Your task to perform on an android device: snooze an email in the gmail app Image 0: 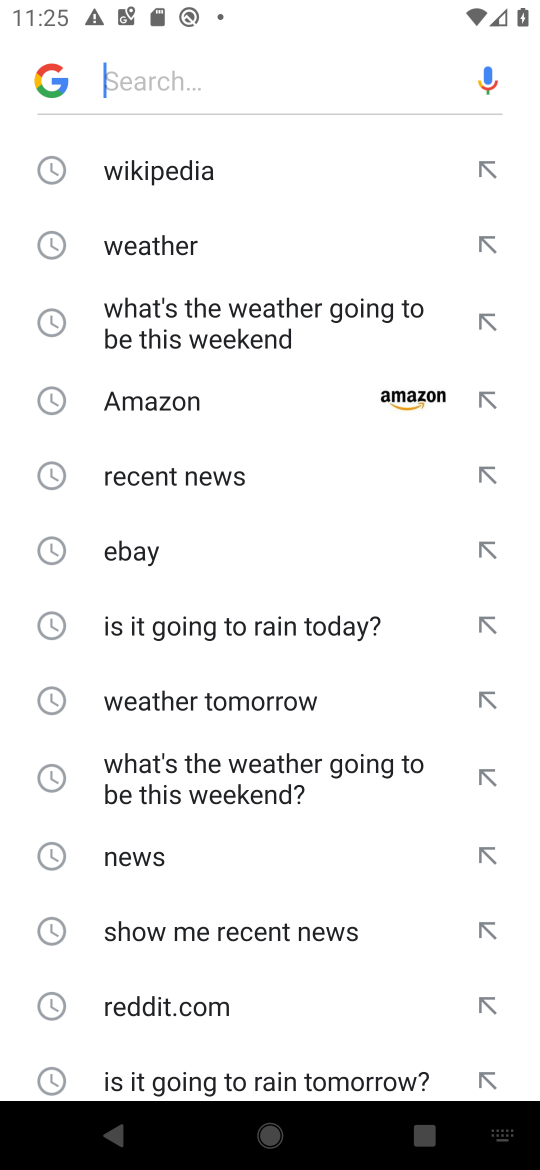
Step 0: press home button
Your task to perform on an android device: snooze an email in the gmail app Image 1: 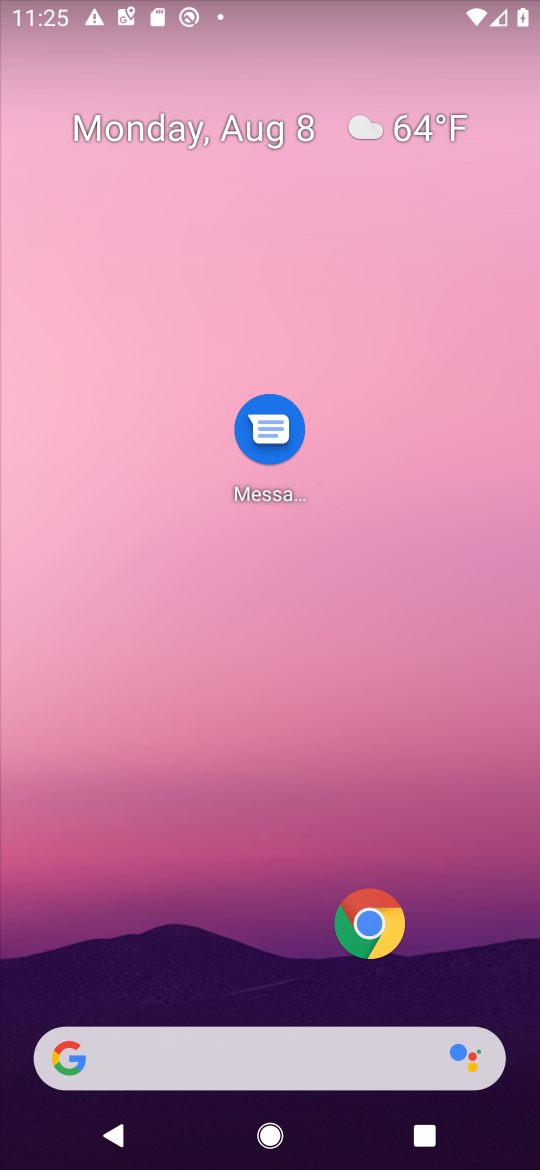
Step 1: drag from (42, 1140) to (364, 348)
Your task to perform on an android device: snooze an email in the gmail app Image 2: 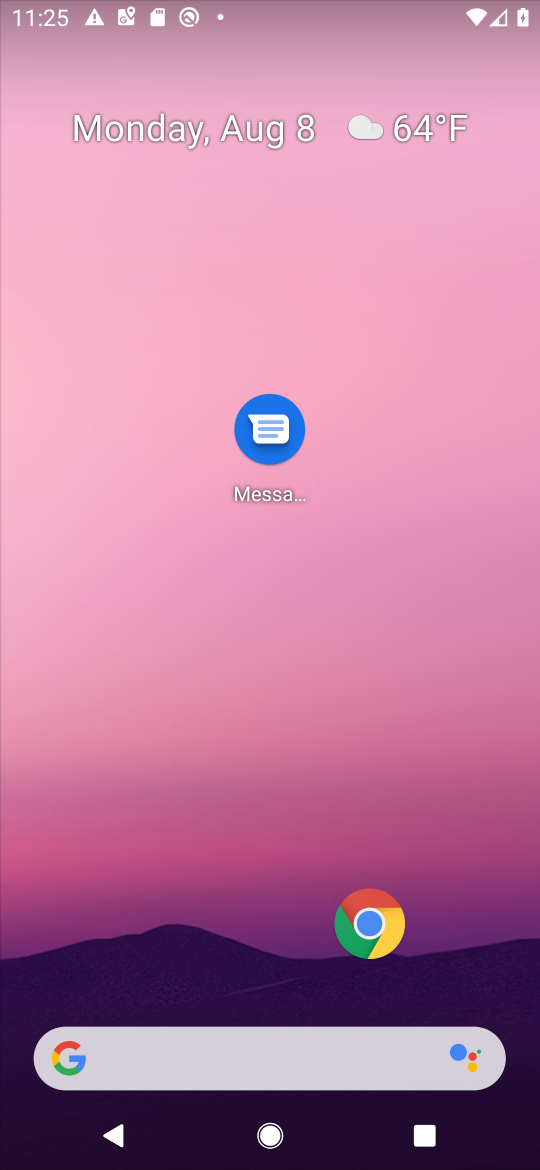
Step 2: drag from (72, 871) to (211, 359)
Your task to perform on an android device: snooze an email in the gmail app Image 3: 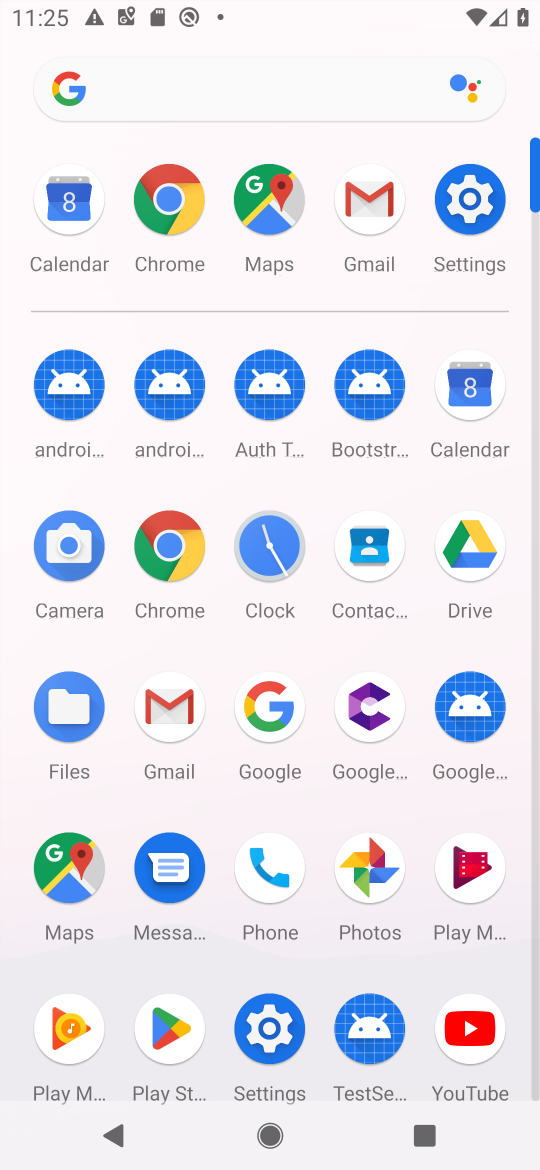
Step 3: click (186, 720)
Your task to perform on an android device: snooze an email in the gmail app Image 4: 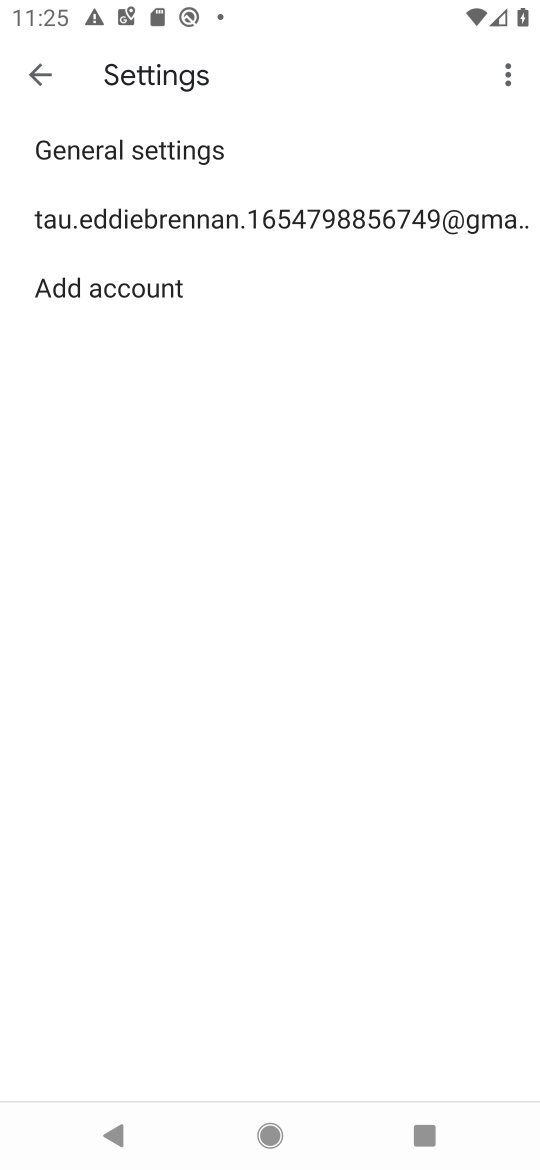
Step 4: click (54, 90)
Your task to perform on an android device: snooze an email in the gmail app Image 5: 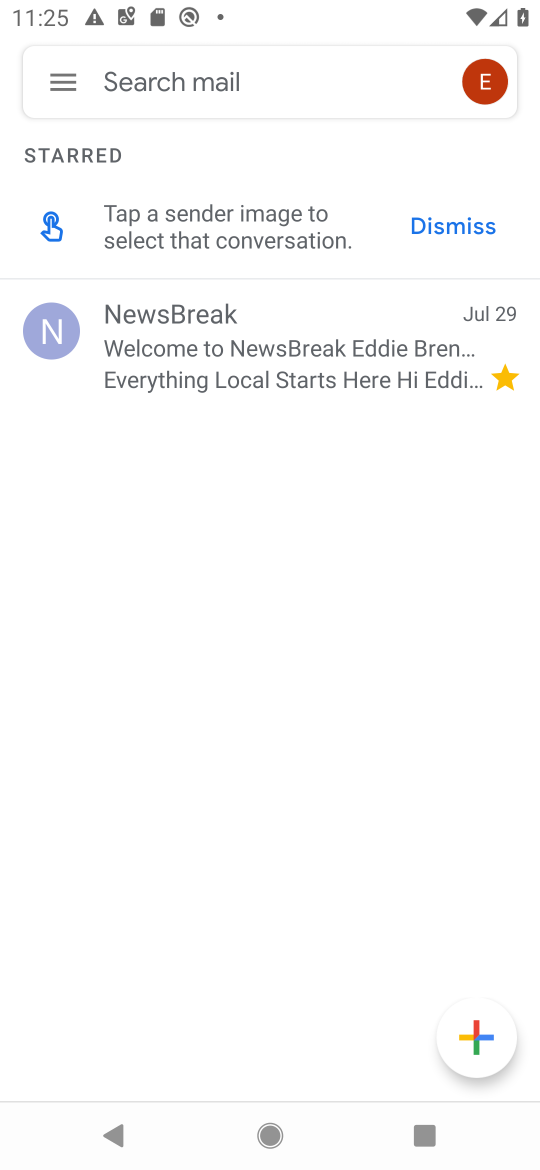
Step 5: click (75, 70)
Your task to perform on an android device: snooze an email in the gmail app Image 6: 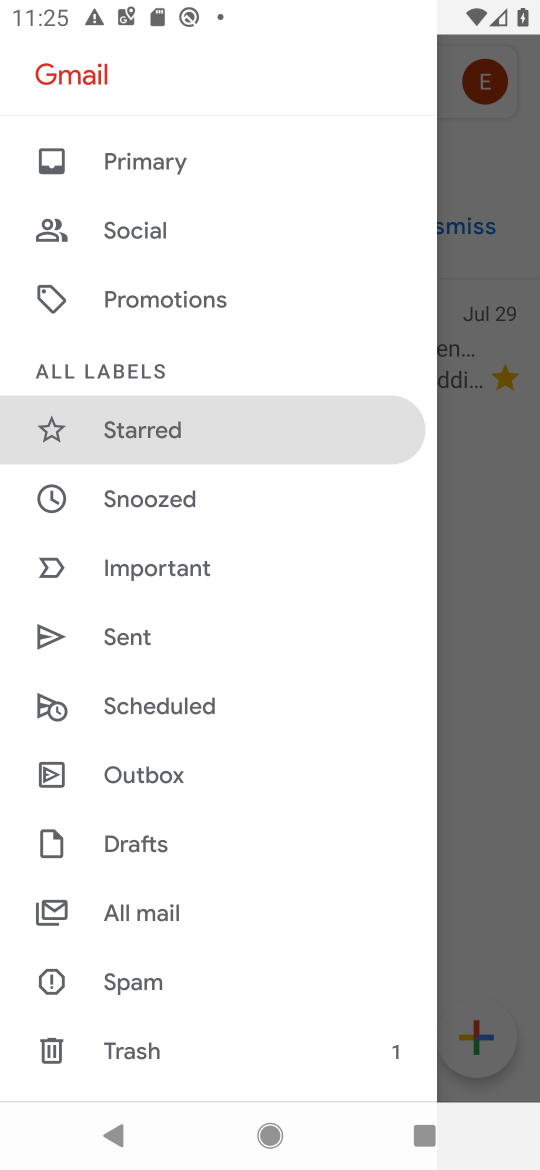
Step 6: click (158, 510)
Your task to perform on an android device: snooze an email in the gmail app Image 7: 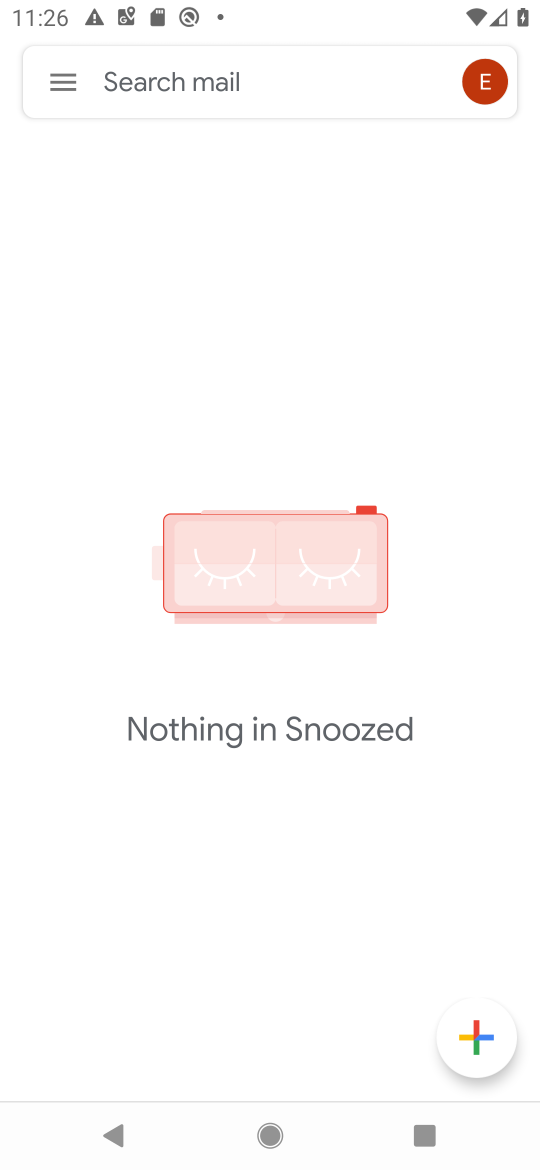
Step 7: task complete